Your task to perform on an android device: Open settings Image 0: 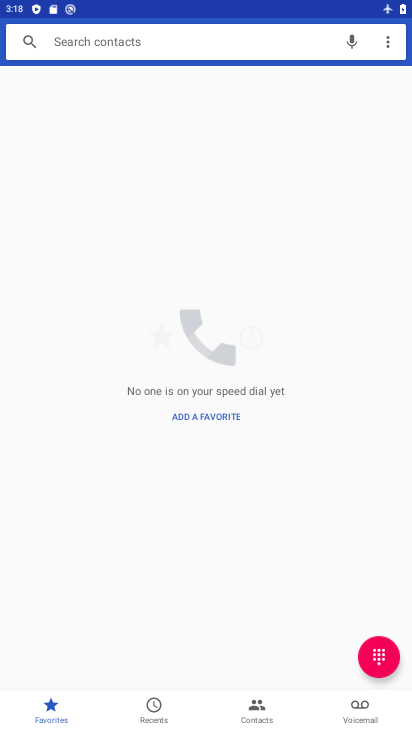
Step 0: press home button
Your task to perform on an android device: Open settings Image 1: 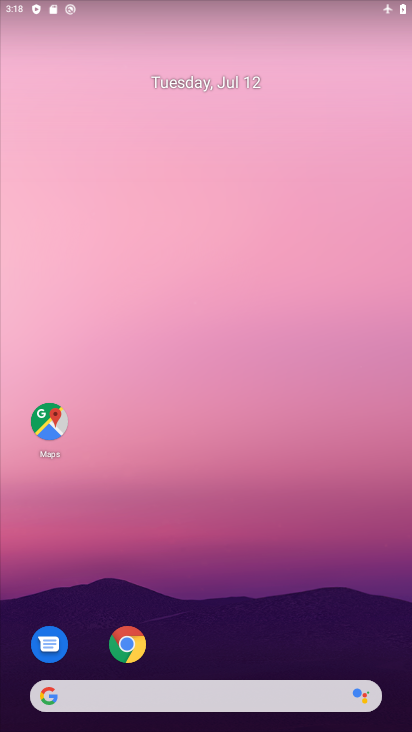
Step 1: drag from (280, 505) to (253, 59)
Your task to perform on an android device: Open settings Image 2: 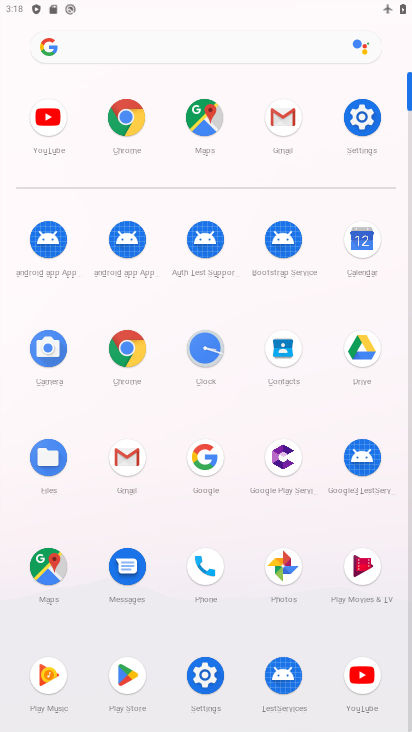
Step 2: click (371, 109)
Your task to perform on an android device: Open settings Image 3: 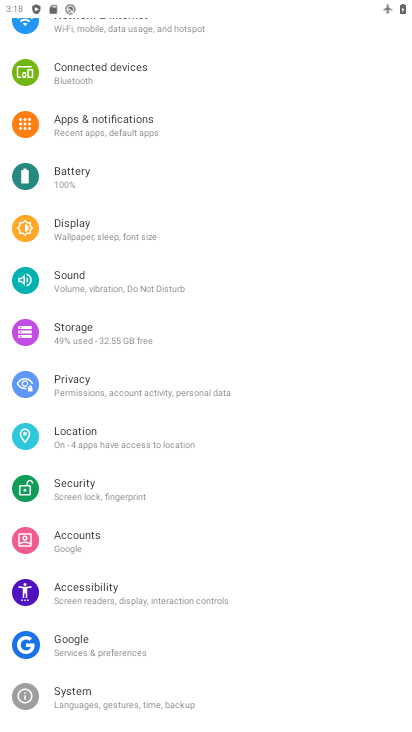
Step 3: task complete